Your task to perform on an android device: turn on notifications settings in the gmail app Image 0: 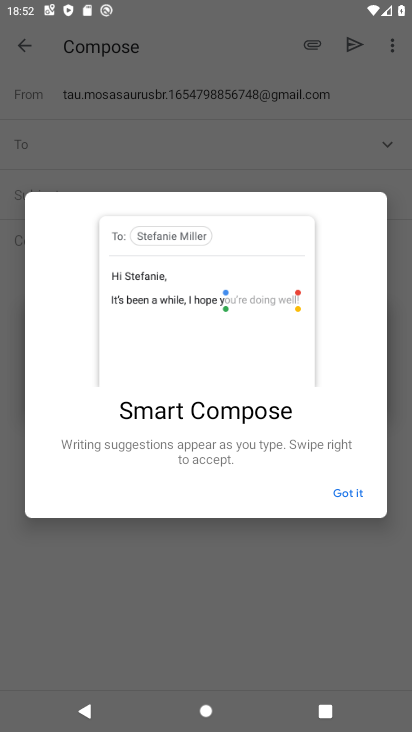
Step 0: click (354, 489)
Your task to perform on an android device: turn on notifications settings in the gmail app Image 1: 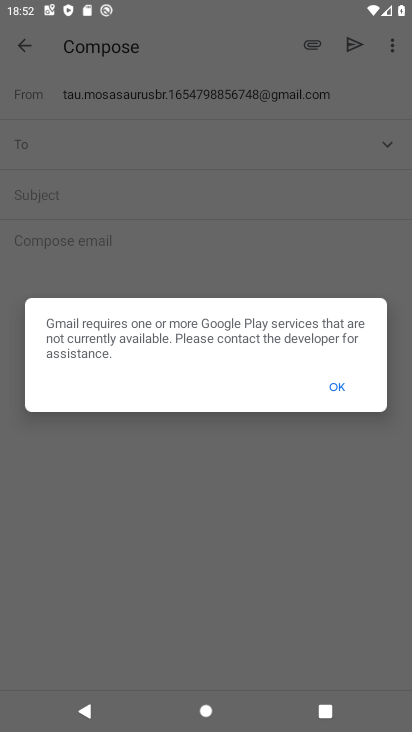
Step 1: click (342, 386)
Your task to perform on an android device: turn on notifications settings in the gmail app Image 2: 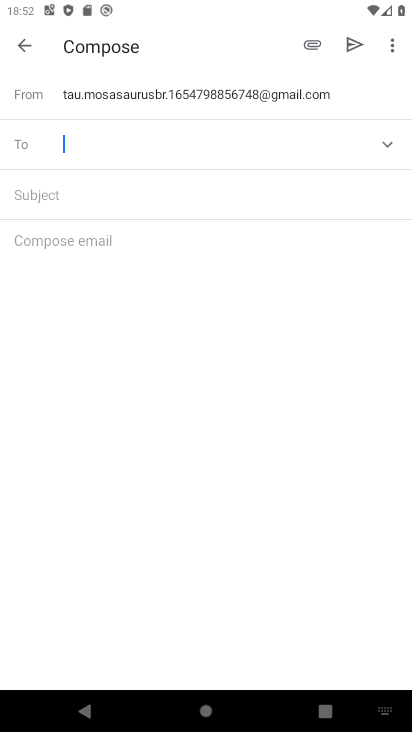
Step 2: click (23, 51)
Your task to perform on an android device: turn on notifications settings in the gmail app Image 3: 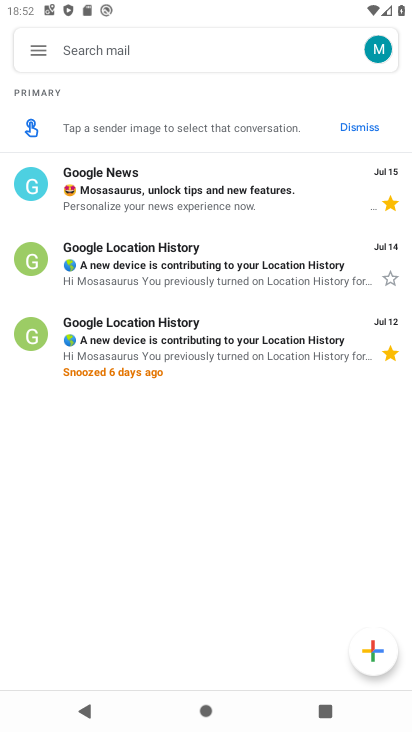
Step 3: click (29, 47)
Your task to perform on an android device: turn on notifications settings in the gmail app Image 4: 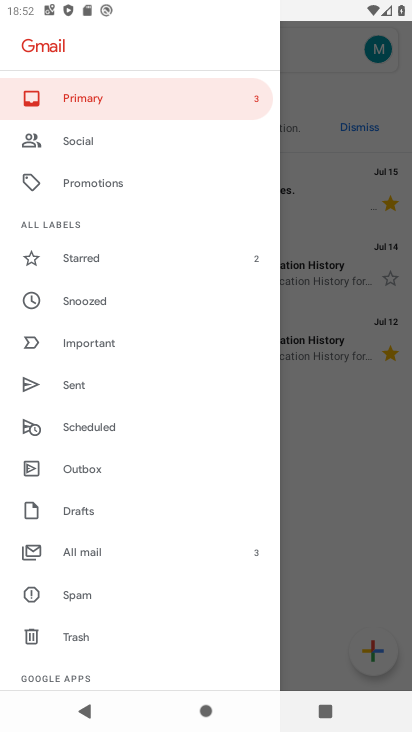
Step 4: drag from (111, 559) to (126, 246)
Your task to perform on an android device: turn on notifications settings in the gmail app Image 5: 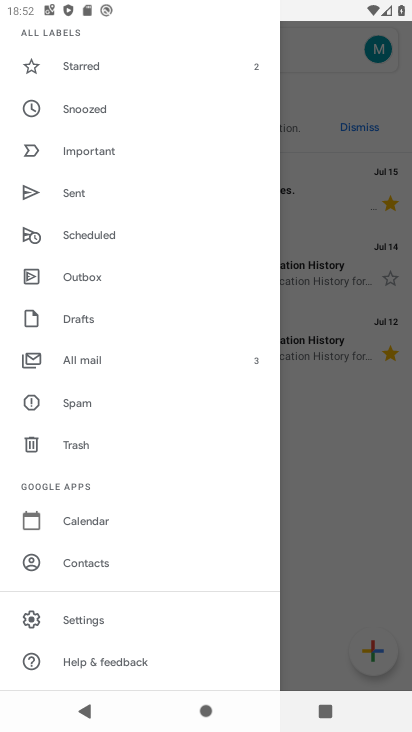
Step 5: click (81, 611)
Your task to perform on an android device: turn on notifications settings in the gmail app Image 6: 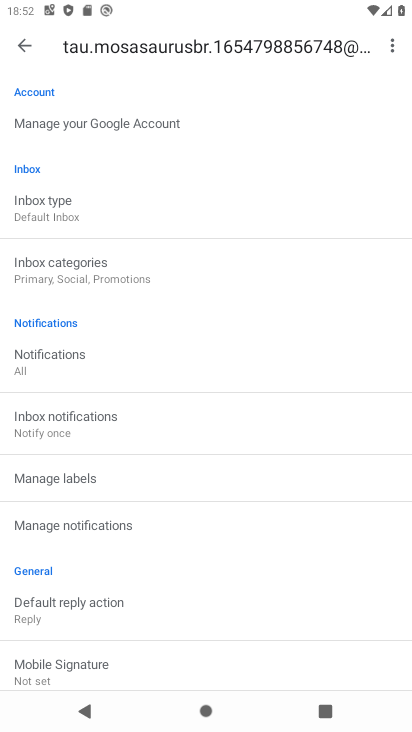
Step 6: click (23, 40)
Your task to perform on an android device: turn on notifications settings in the gmail app Image 7: 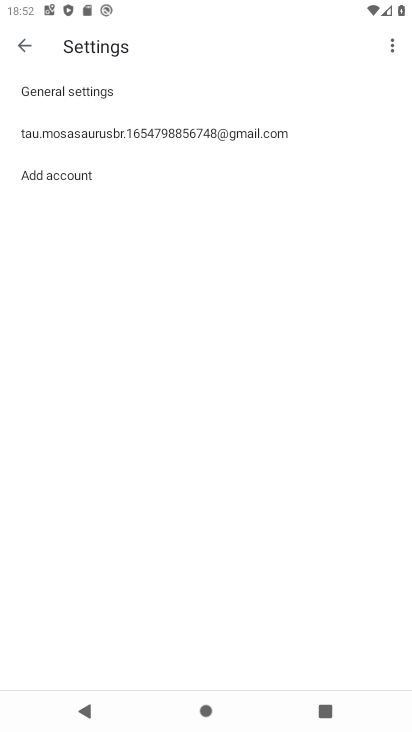
Step 7: click (47, 92)
Your task to perform on an android device: turn on notifications settings in the gmail app Image 8: 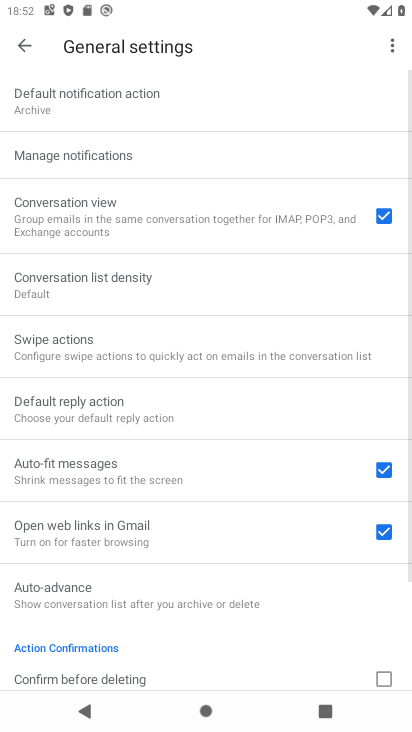
Step 8: click (148, 154)
Your task to perform on an android device: turn on notifications settings in the gmail app Image 9: 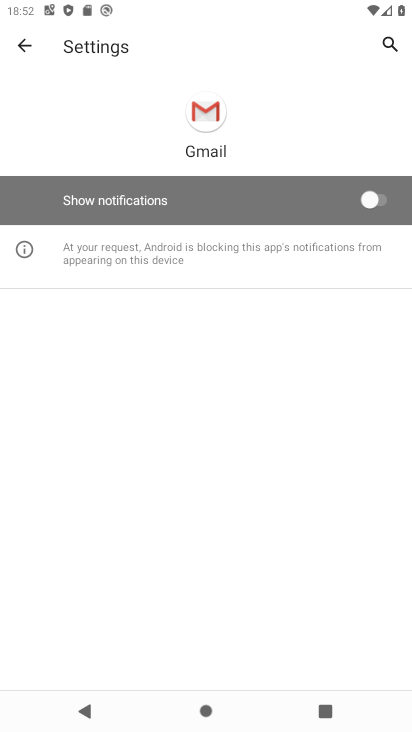
Step 9: click (376, 198)
Your task to perform on an android device: turn on notifications settings in the gmail app Image 10: 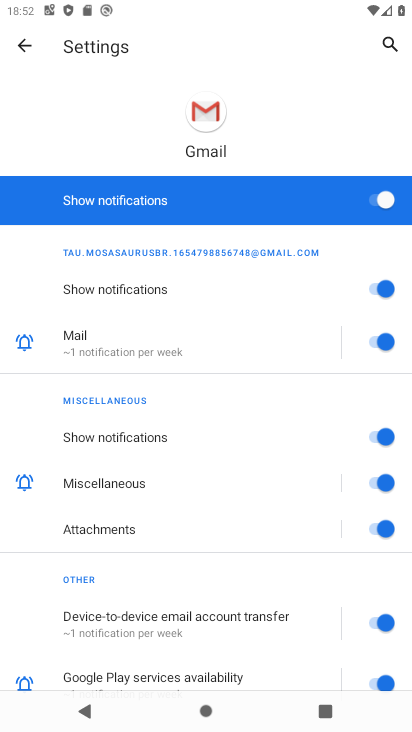
Step 10: task complete